Your task to perform on an android device: turn on wifi Image 0: 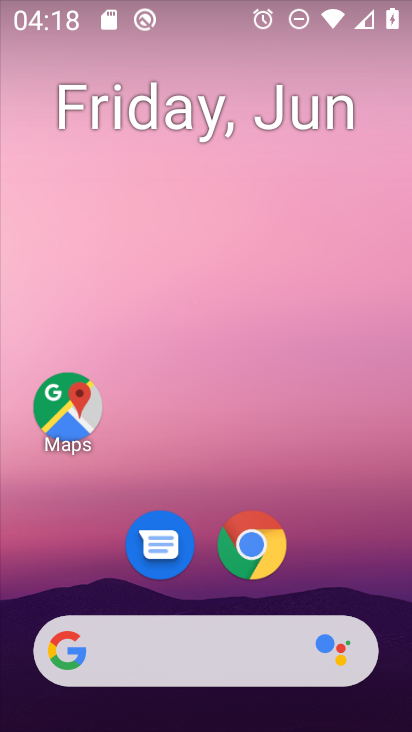
Step 0: press home button
Your task to perform on an android device: turn on wifi Image 1: 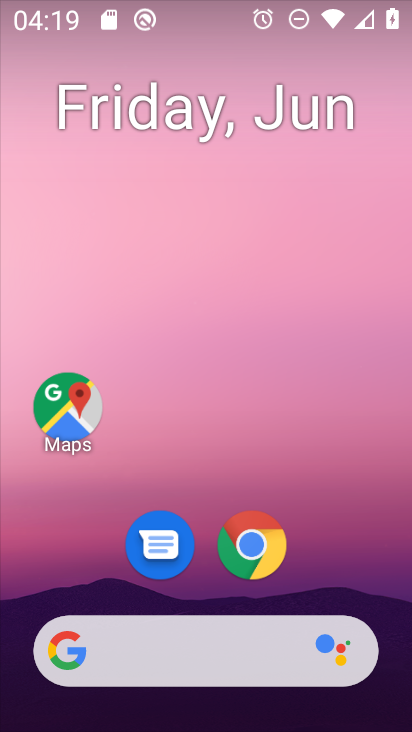
Step 1: drag from (334, 533) to (314, 74)
Your task to perform on an android device: turn on wifi Image 2: 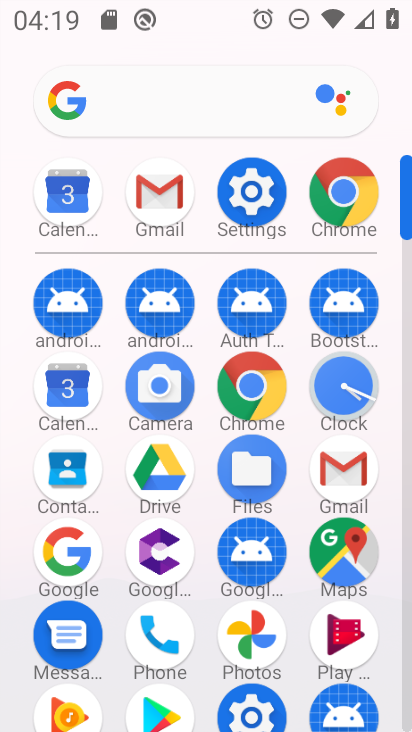
Step 2: click (238, 176)
Your task to perform on an android device: turn on wifi Image 3: 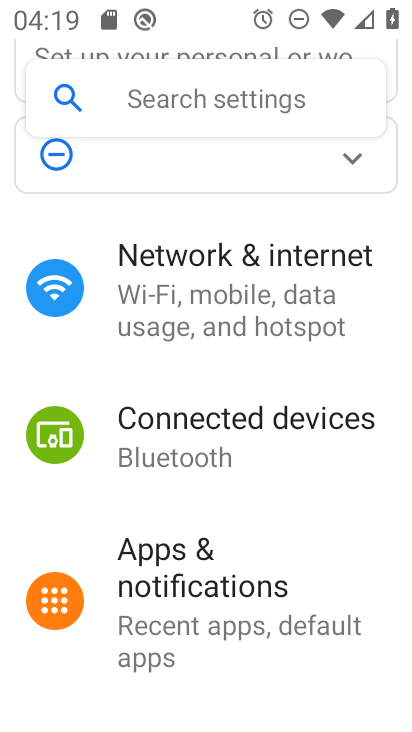
Step 3: click (176, 280)
Your task to perform on an android device: turn on wifi Image 4: 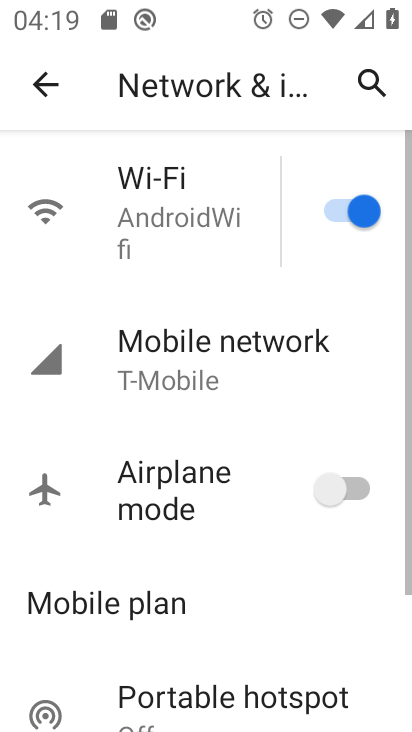
Step 4: task complete